Your task to perform on an android device: toggle airplane mode Image 0: 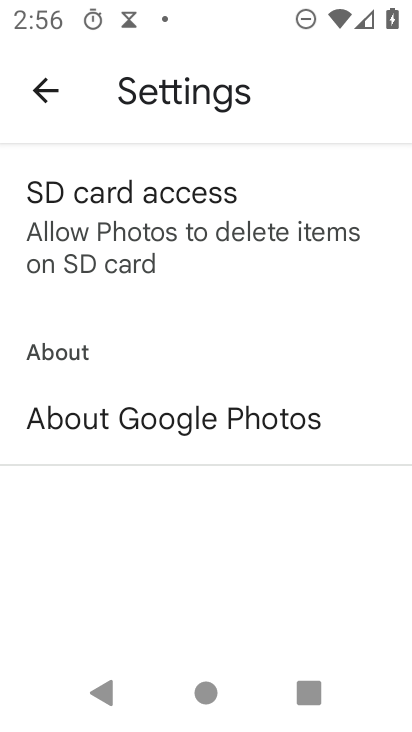
Step 0: press home button
Your task to perform on an android device: toggle airplane mode Image 1: 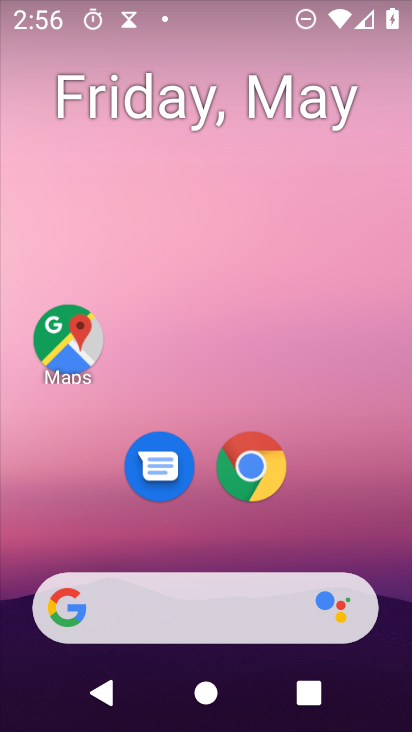
Step 1: drag from (347, 533) to (378, 70)
Your task to perform on an android device: toggle airplane mode Image 2: 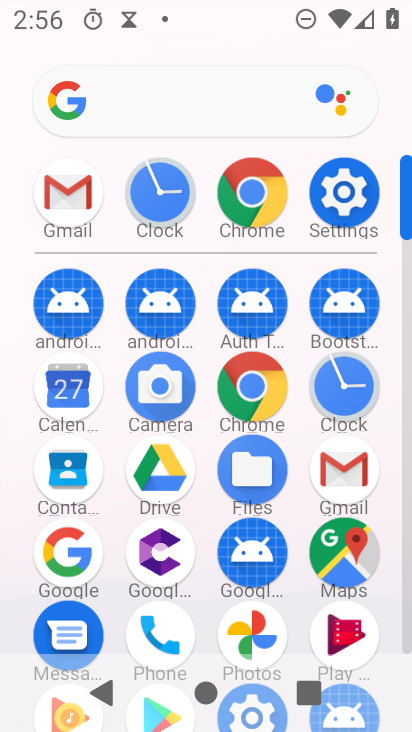
Step 2: click (370, 170)
Your task to perform on an android device: toggle airplane mode Image 3: 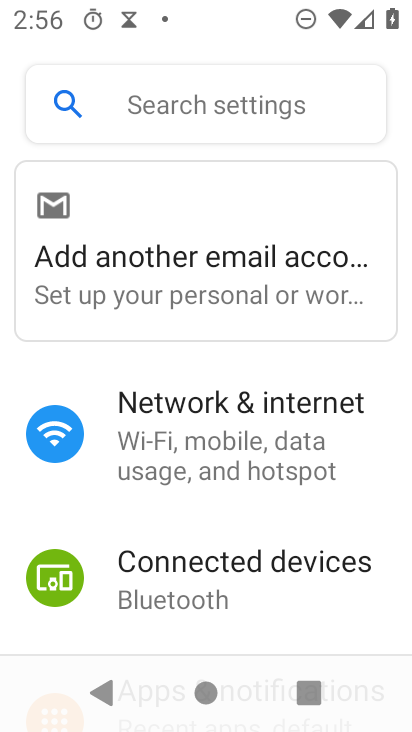
Step 3: click (198, 471)
Your task to perform on an android device: toggle airplane mode Image 4: 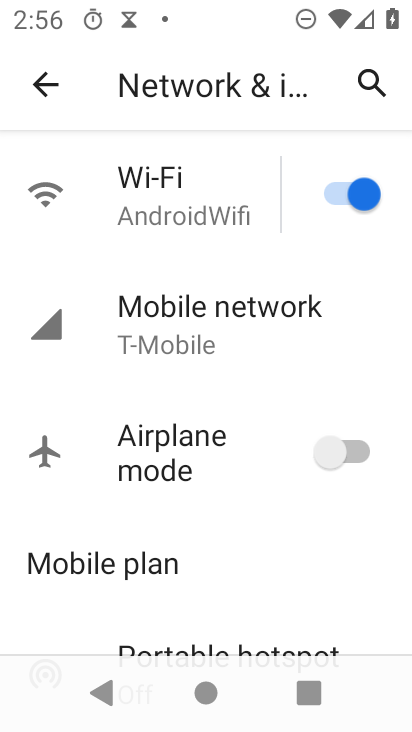
Step 4: drag from (251, 578) to (285, 283)
Your task to perform on an android device: toggle airplane mode Image 5: 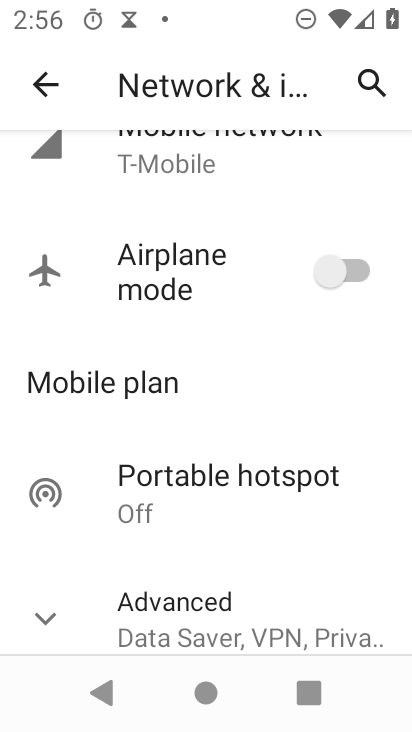
Step 5: click (334, 271)
Your task to perform on an android device: toggle airplane mode Image 6: 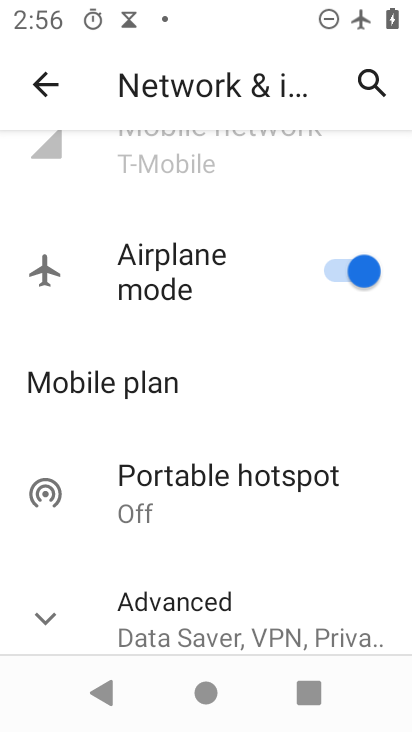
Step 6: task complete